Your task to perform on an android device: What's the time in San Francisco? Image 0: 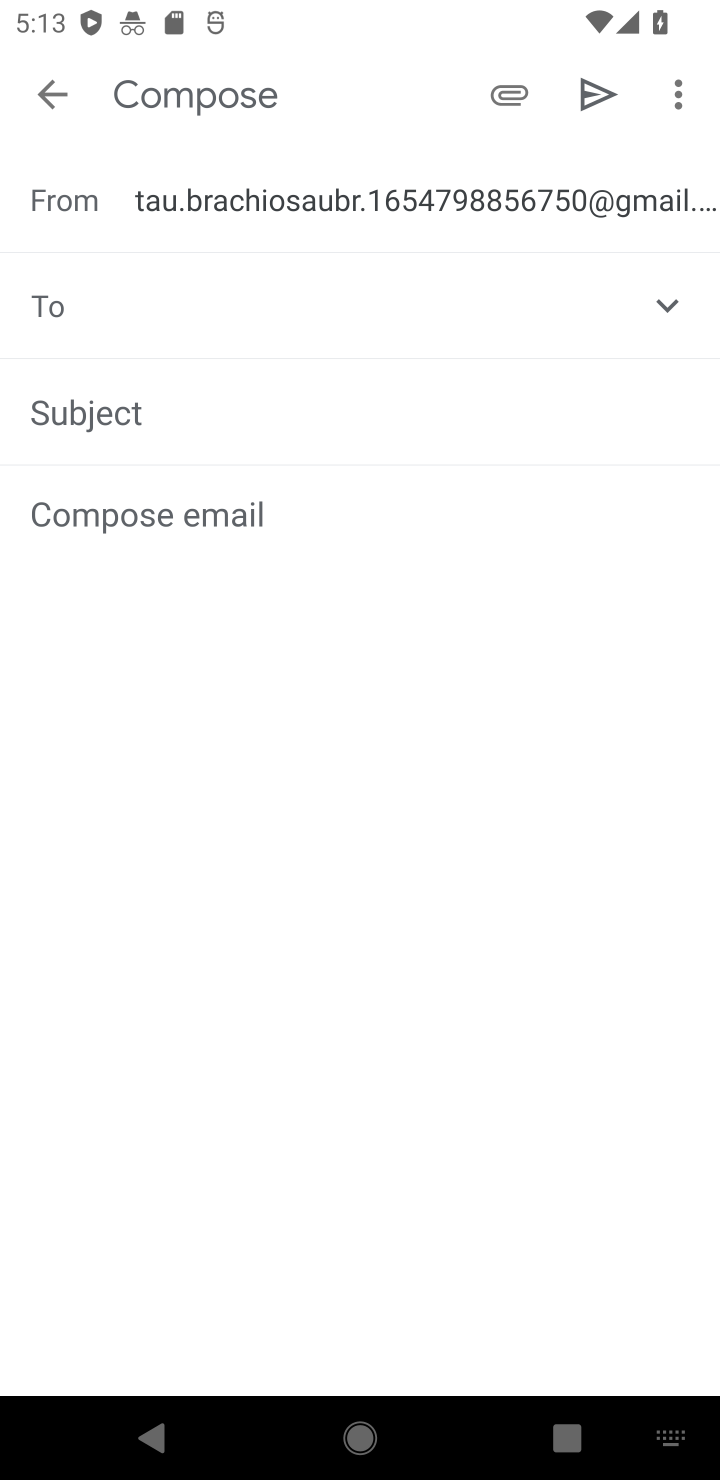
Step 0: press home button
Your task to perform on an android device: What's the time in San Francisco? Image 1: 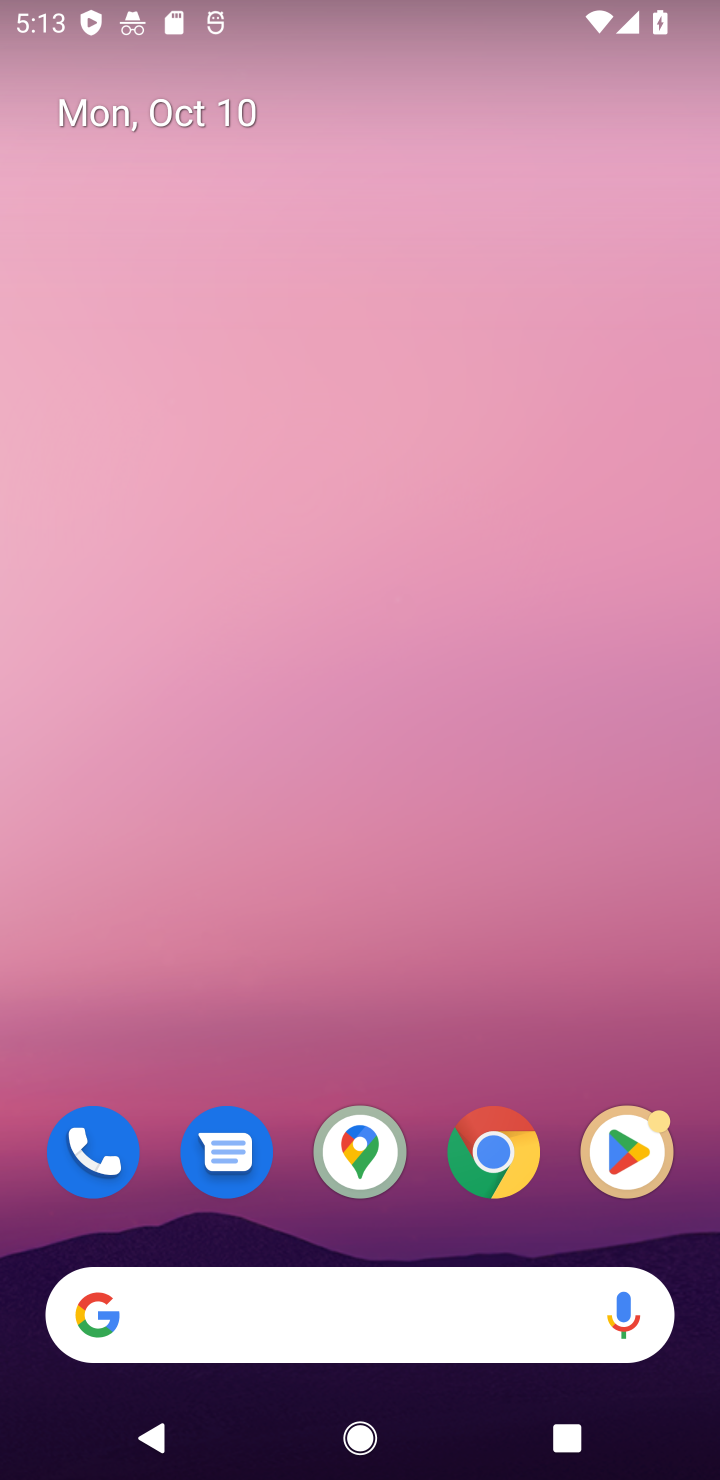
Step 1: click (498, 1145)
Your task to perform on an android device: What's the time in San Francisco? Image 2: 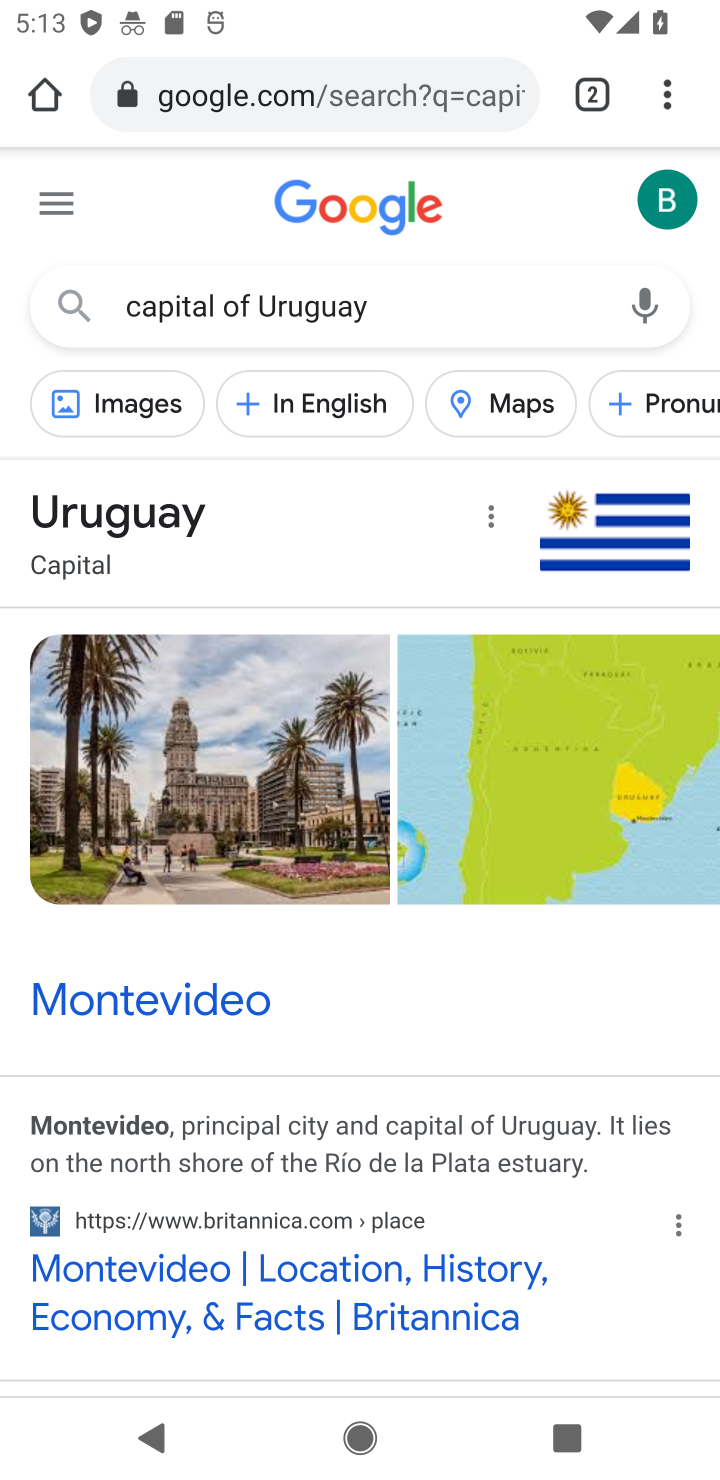
Step 2: click (425, 112)
Your task to perform on an android device: What's the time in San Francisco? Image 3: 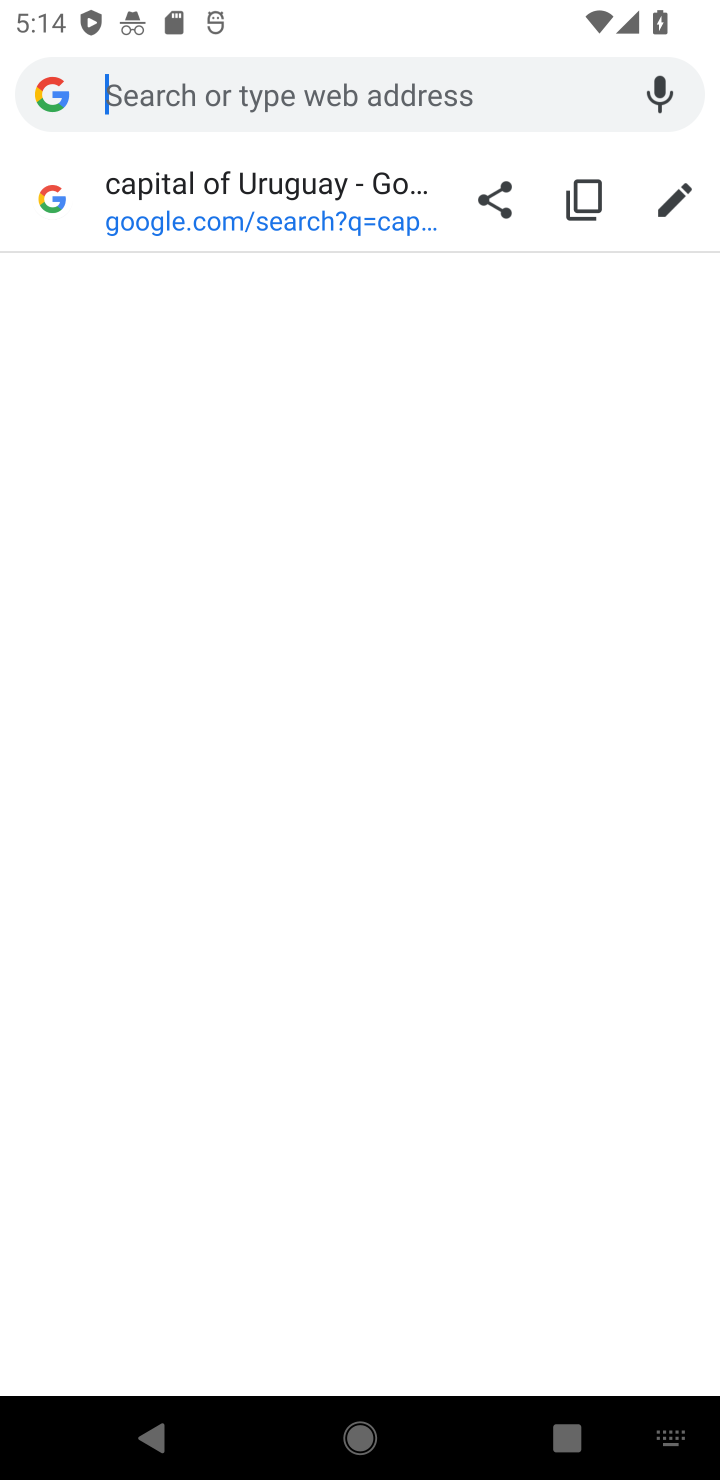
Step 3: type "What's the time in San Francisco"
Your task to perform on an android device: What's the time in San Francisco? Image 4: 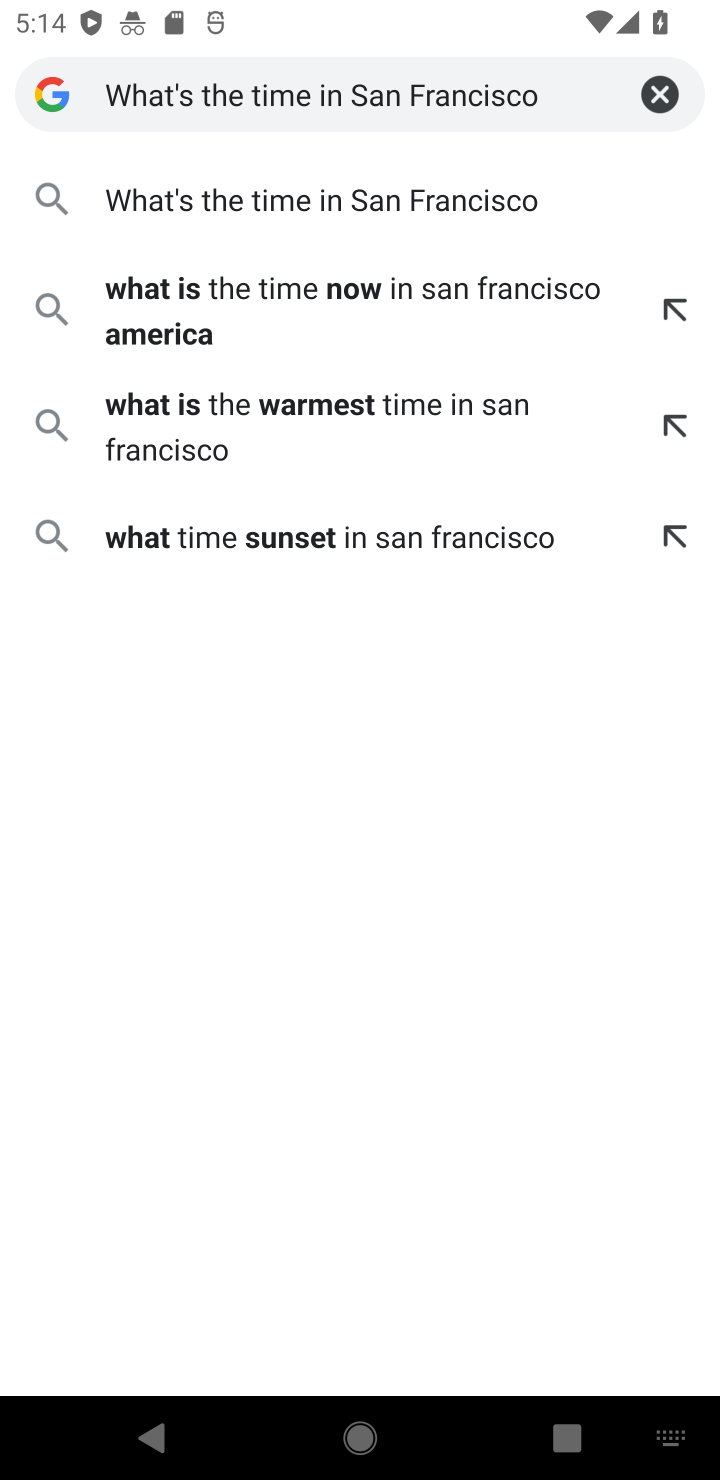
Step 4: click (354, 200)
Your task to perform on an android device: What's the time in San Francisco? Image 5: 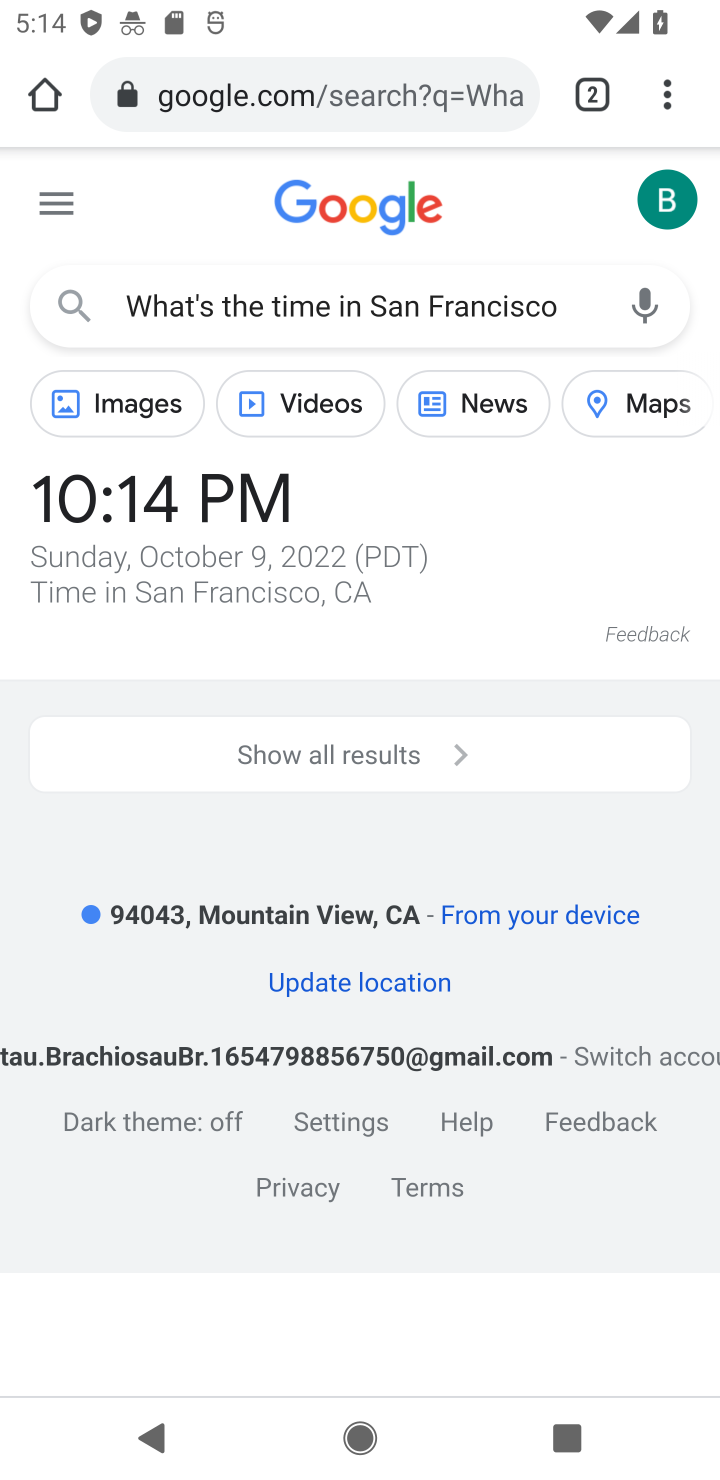
Step 5: task complete